Your task to perform on an android device: Add "alienware aurora" to the cart on target.com, then select checkout. Image 0: 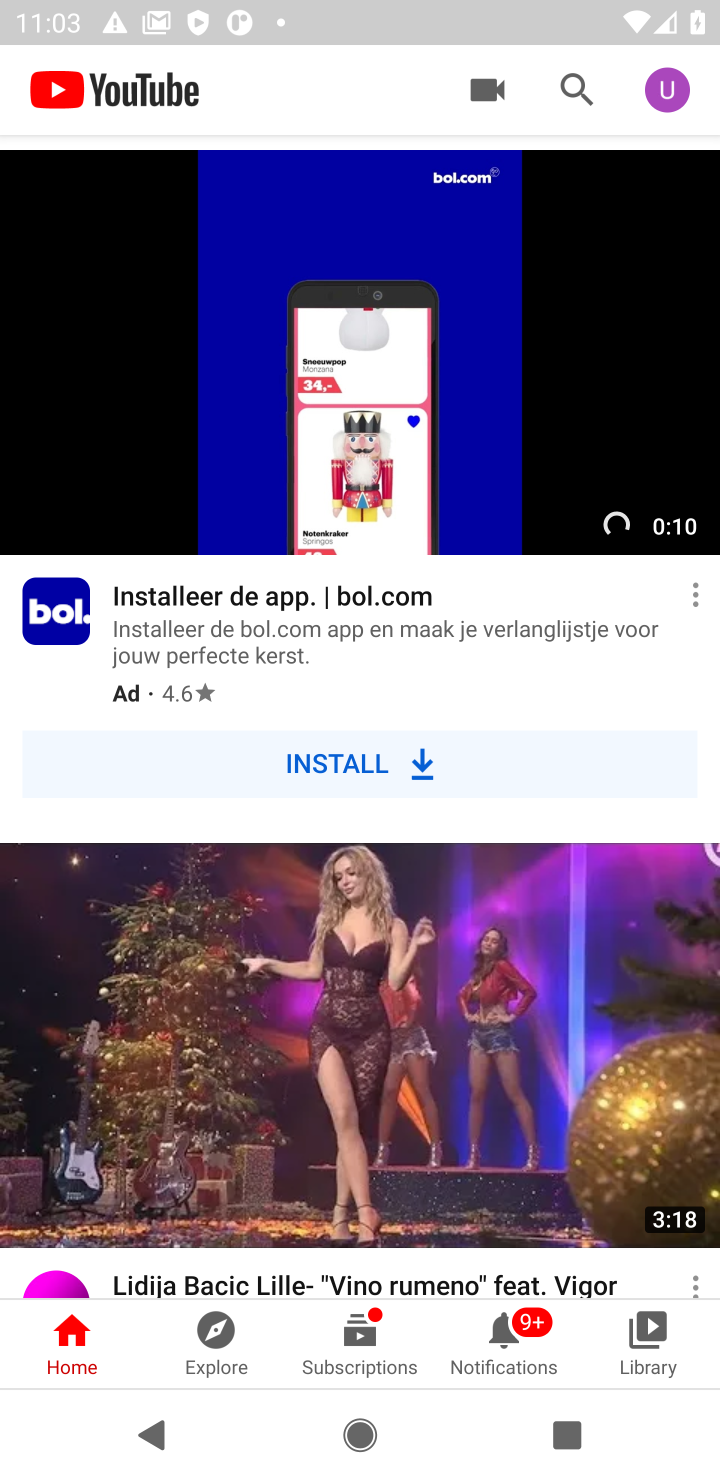
Step 0: press home button
Your task to perform on an android device: Add "alienware aurora" to the cart on target.com, then select checkout. Image 1: 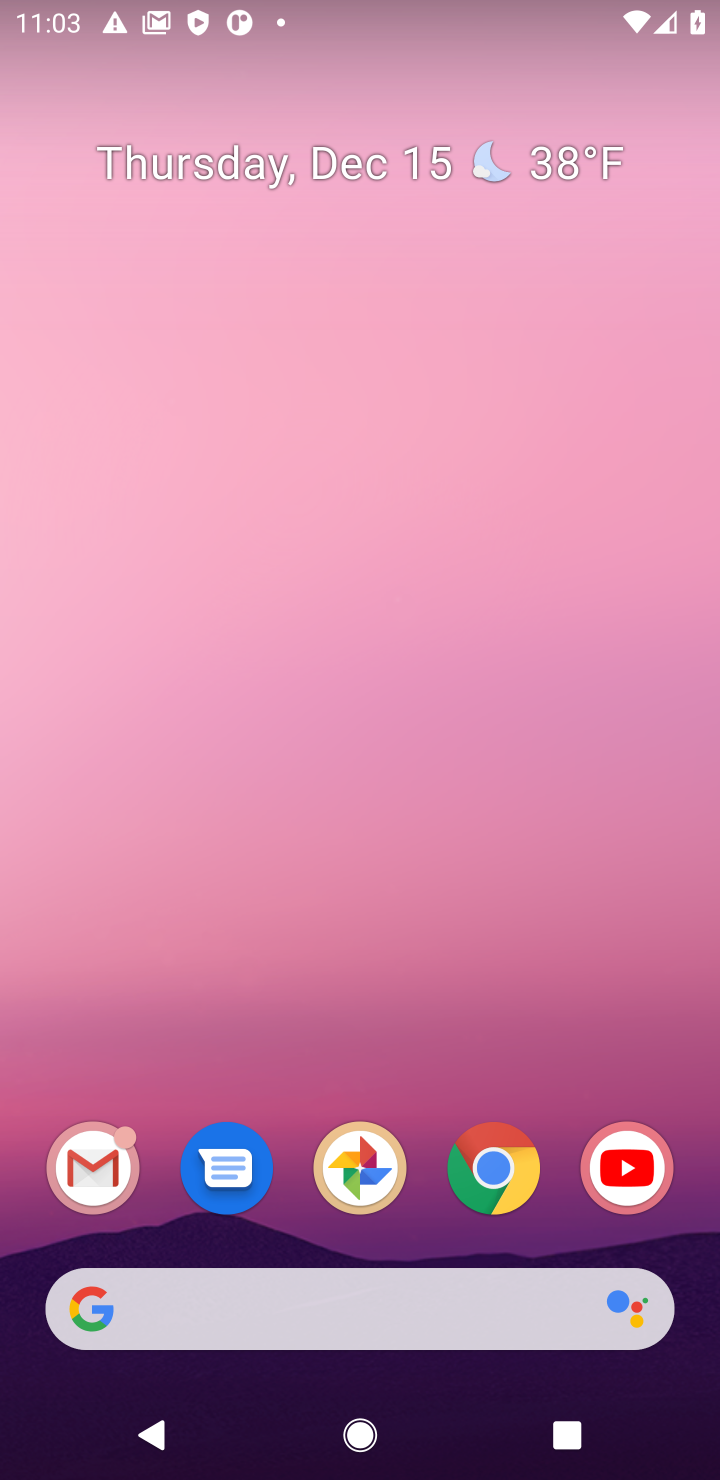
Step 1: click (483, 1162)
Your task to perform on an android device: Add "alienware aurora" to the cart on target.com, then select checkout. Image 2: 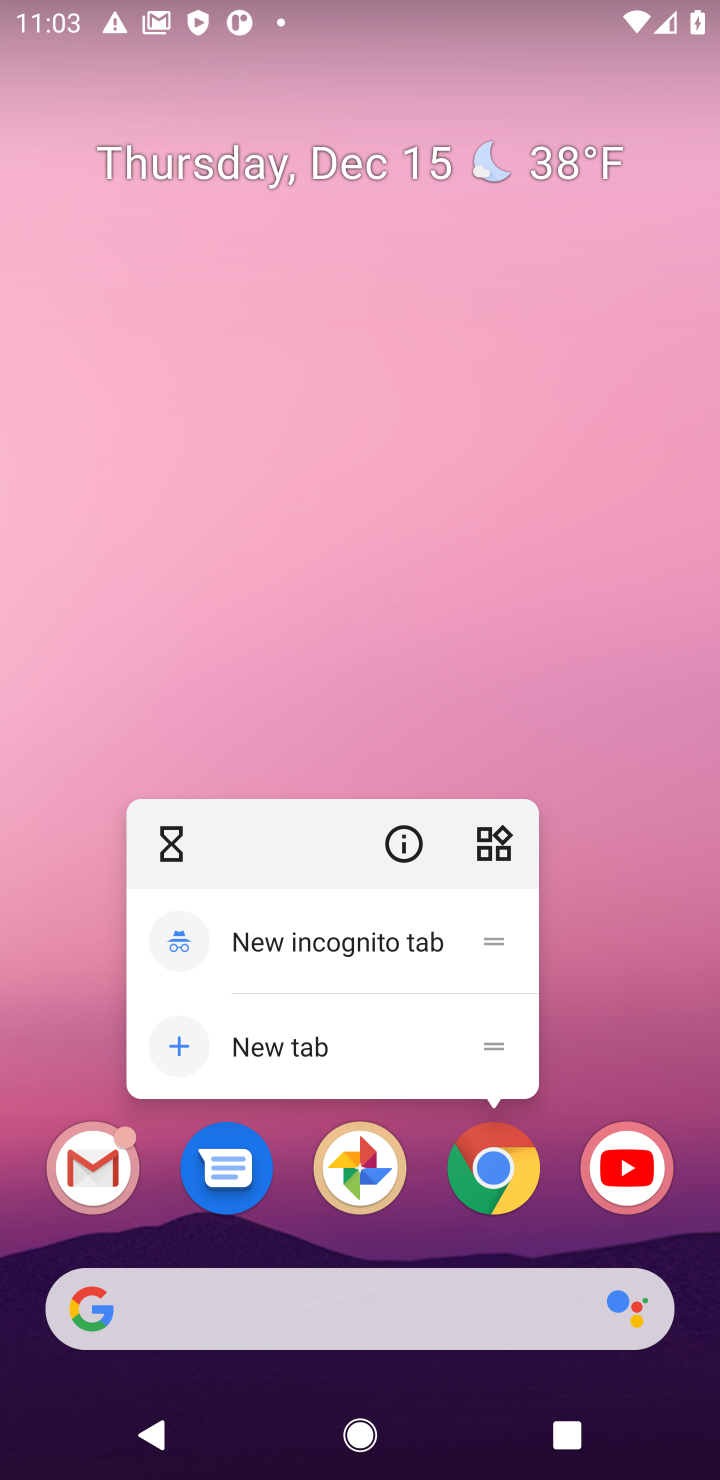
Step 2: click (483, 1162)
Your task to perform on an android device: Add "alienware aurora" to the cart on target.com, then select checkout. Image 3: 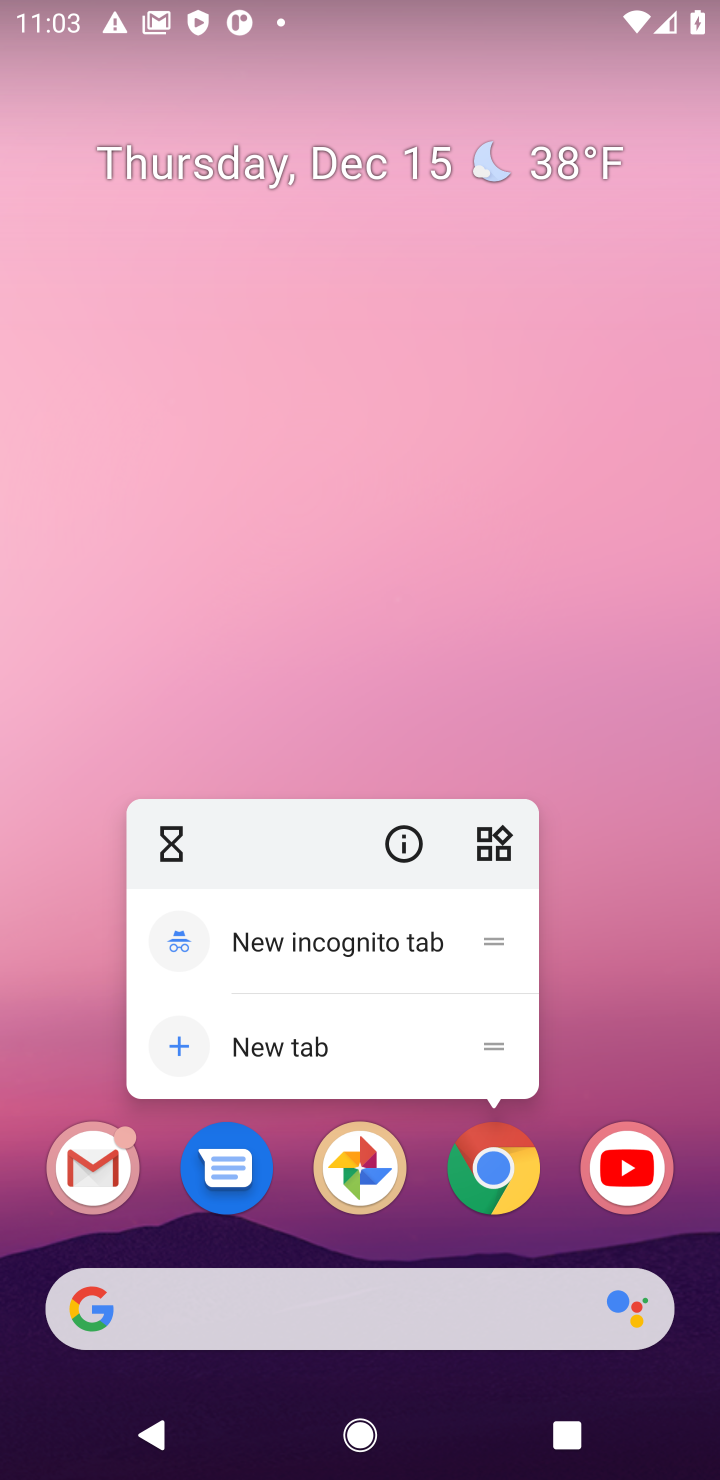
Step 3: click (496, 1174)
Your task to perform on an android device: Add "alienware aurora" to the cart on target.com, then select checkout. Image 4: 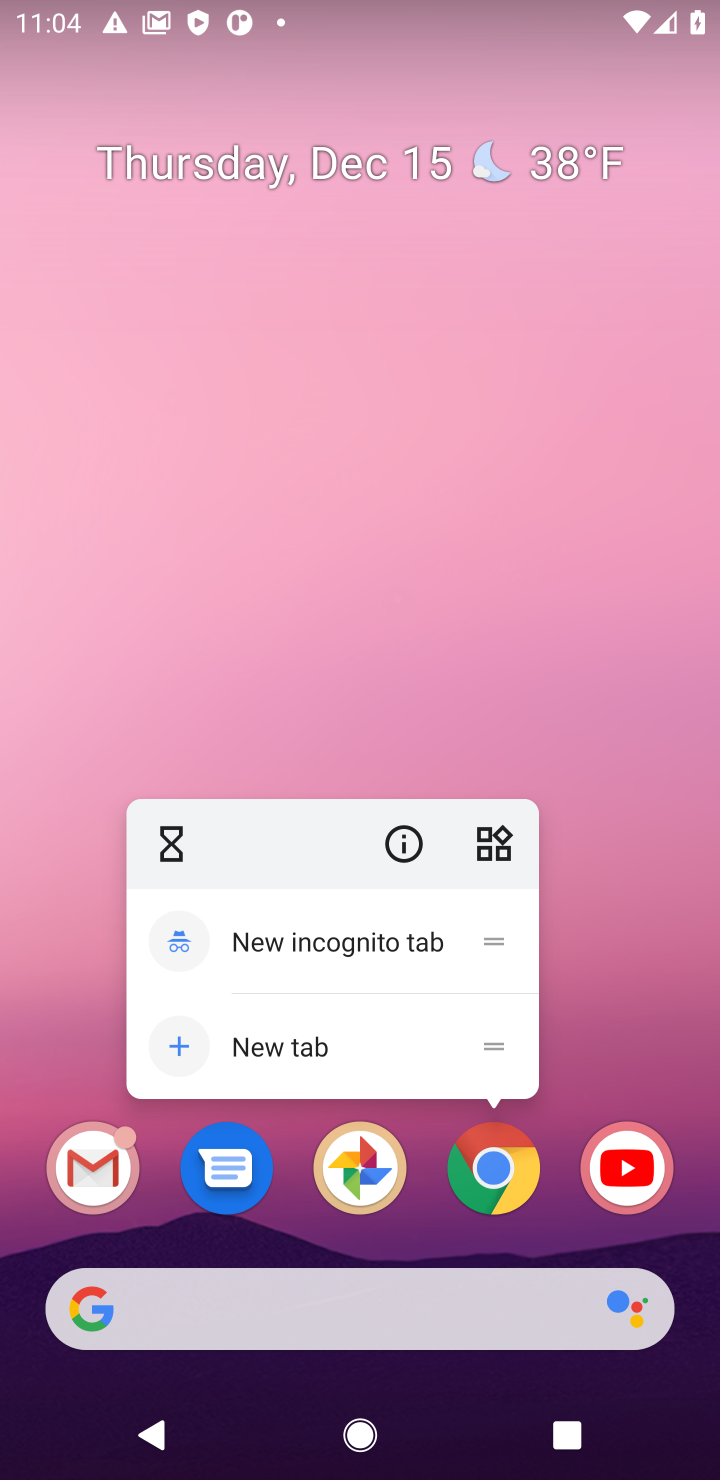
Step 4: click (496, 1174)
Your task to perform on an android device: Add "alienware aurora" to the cart on target.com, then select checkout. Image 5: 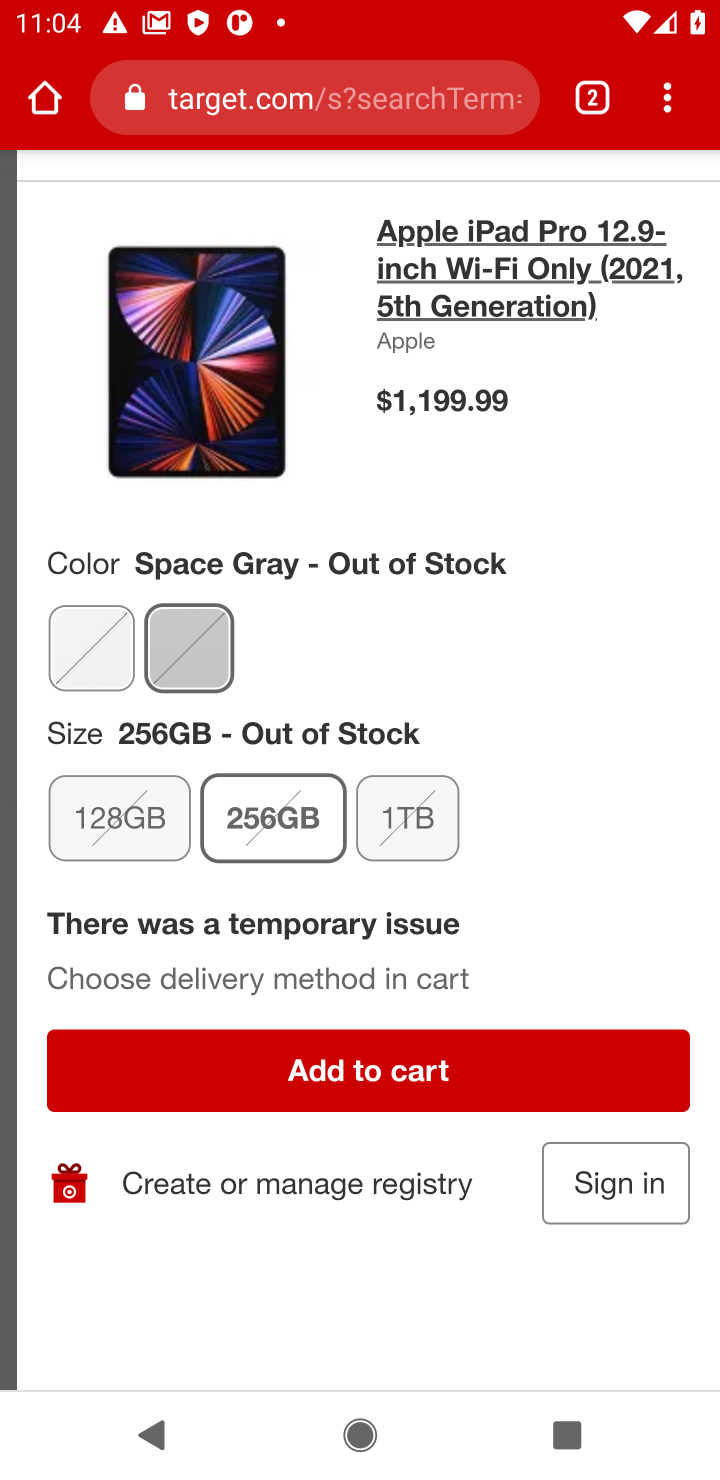
Step 5: click (346, 102)
Your task to perform on an android device: Add "alienware aurora" to the cart on target.com, then select checkout. Image 6: 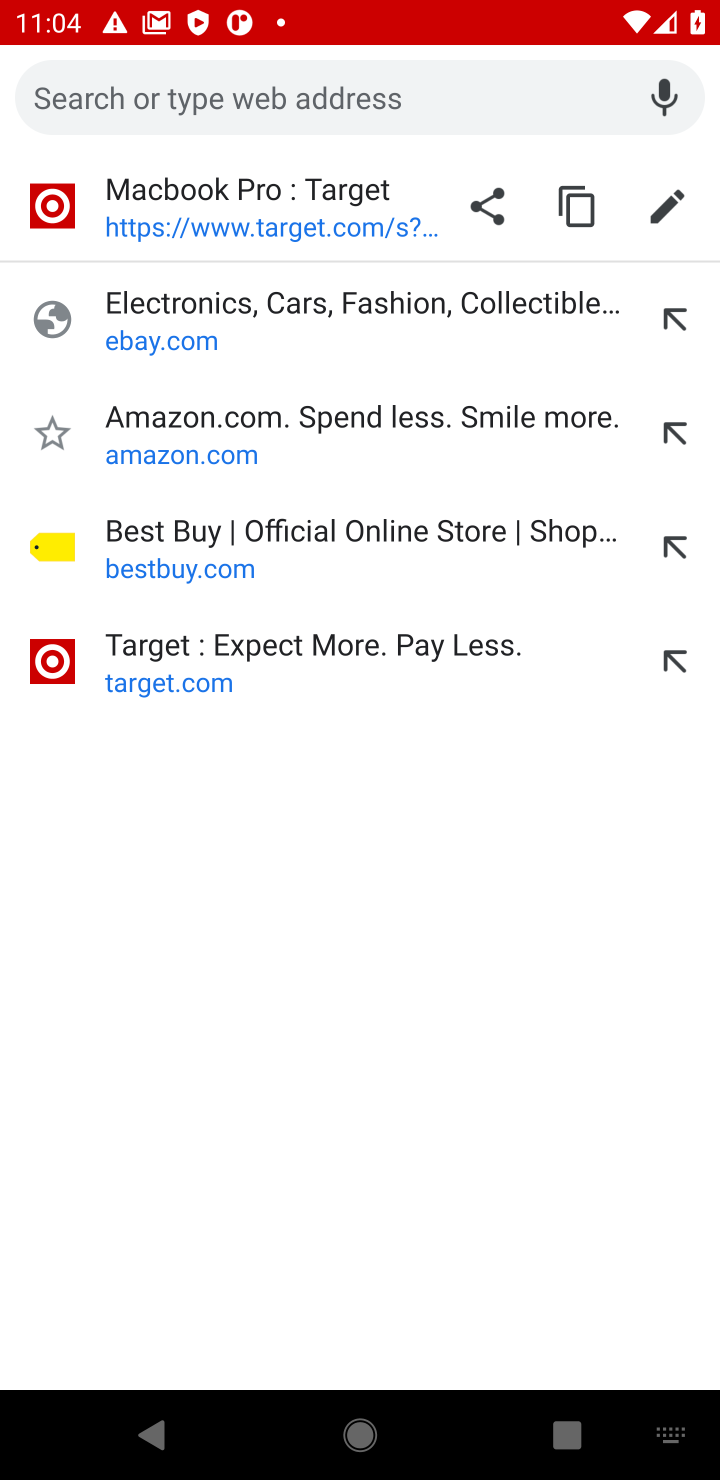
Step 6: click (352, 671)
Your task to perform on an android device: Add "alienware aurora" to the cart on target.com, then select checkout. Image 7: 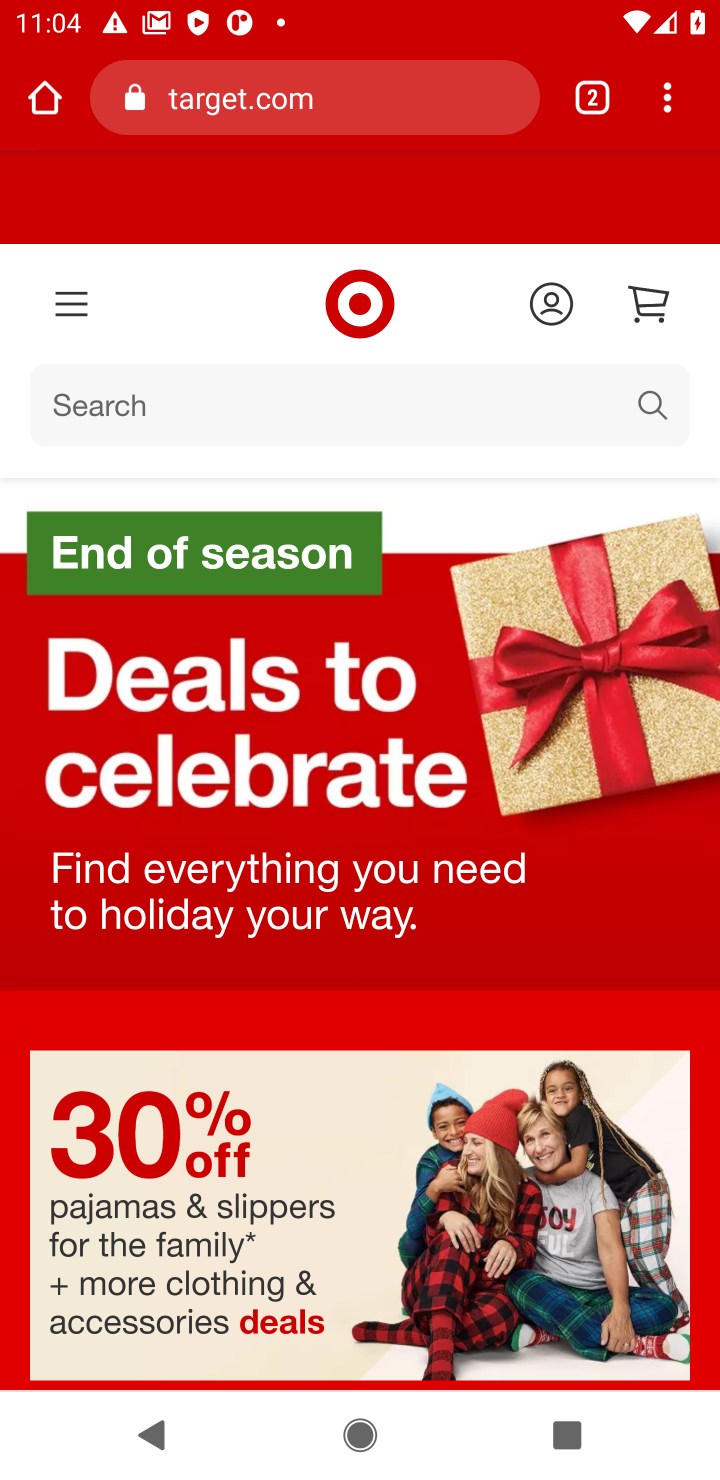
Step 7: click (393, 408)
Your task to perform on an android device: Add "alienware aurora" to the cart on target.com, then select checkout. Image 8: 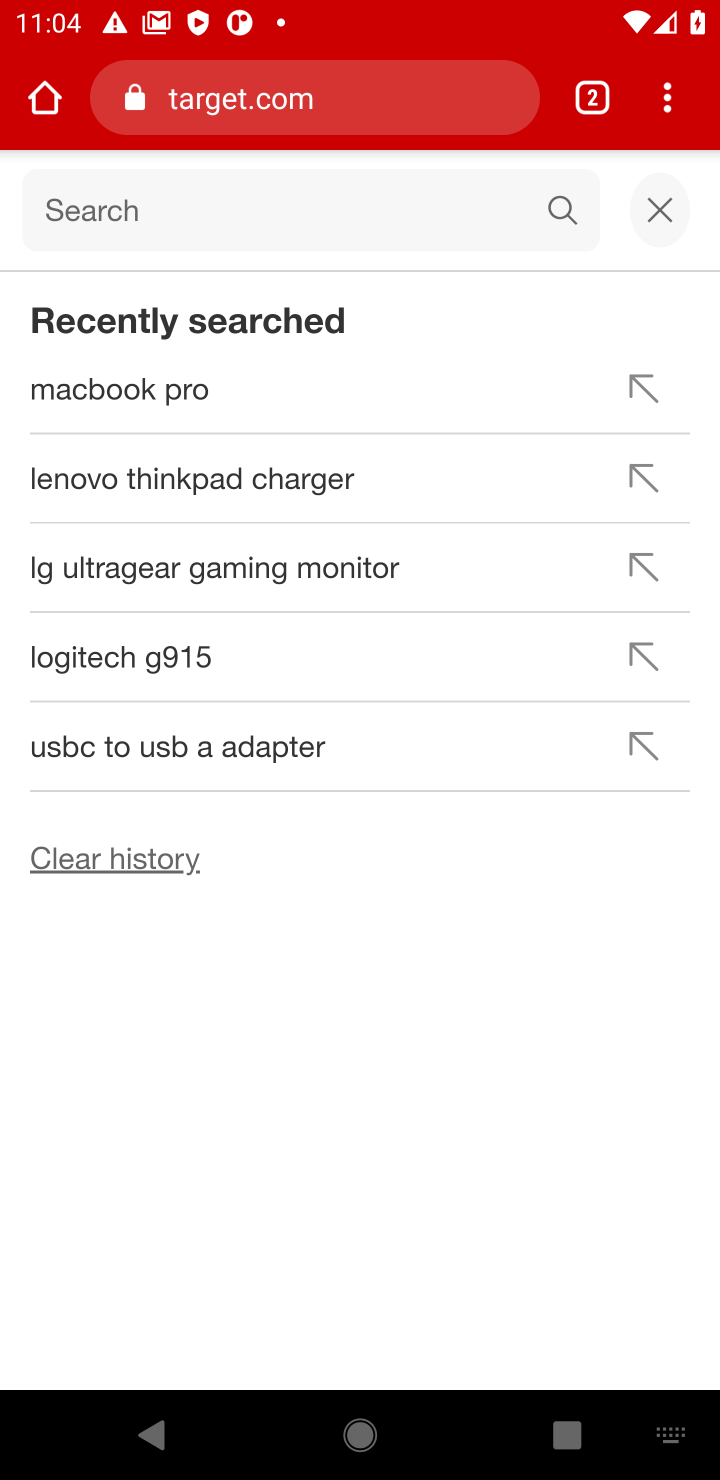
Step 8: type "alienware aurora"
Your task to perform on an android device: Add "alienware aurora" to the cart on target.com, then select checkout. Image 9: 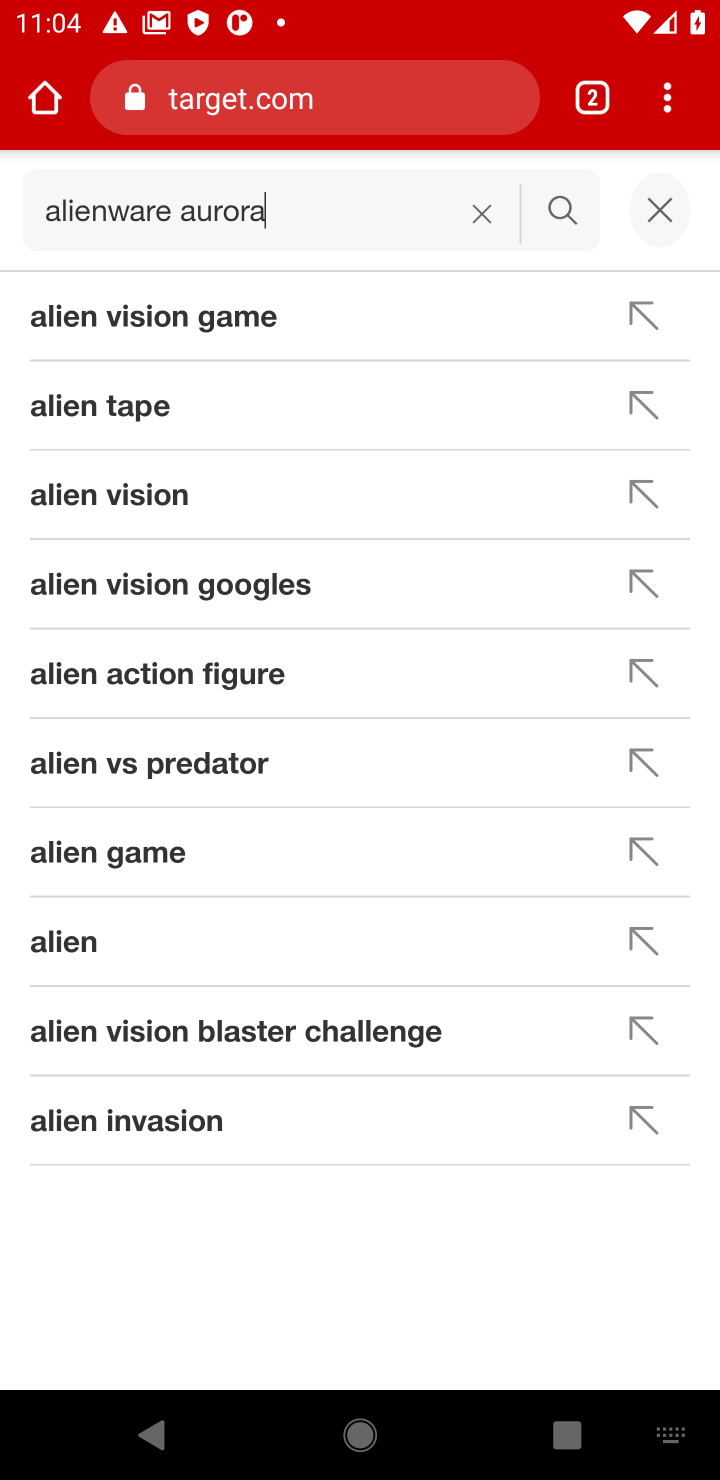
Step 9: click (176, 321)
Your task to perform on an android device: Add "alienware aurora" to the cart on target.com, then select checkout. Image 10: 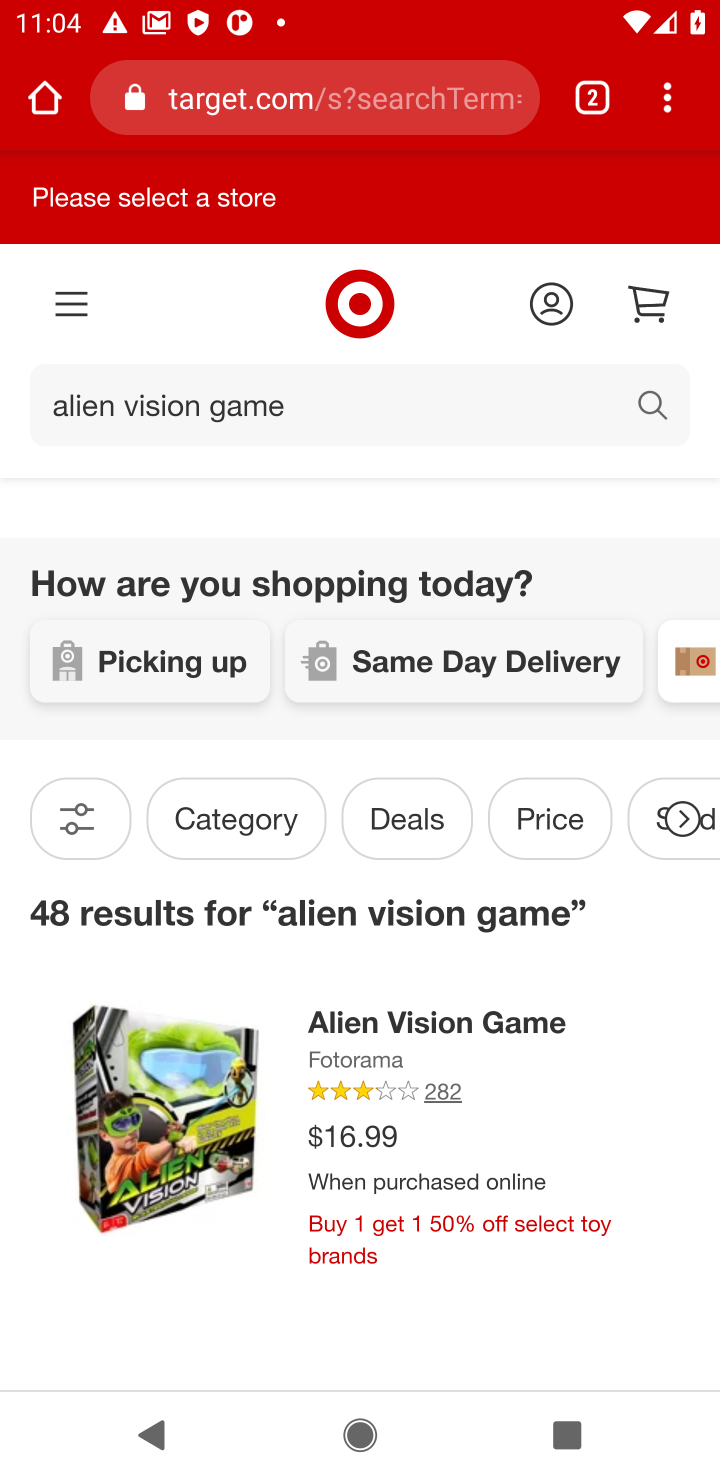
Step 10: click (565, 1117)
Your task to perform on an android device: Add "alienware aurora" to the cart on target.com, then select checkout. Image 11: 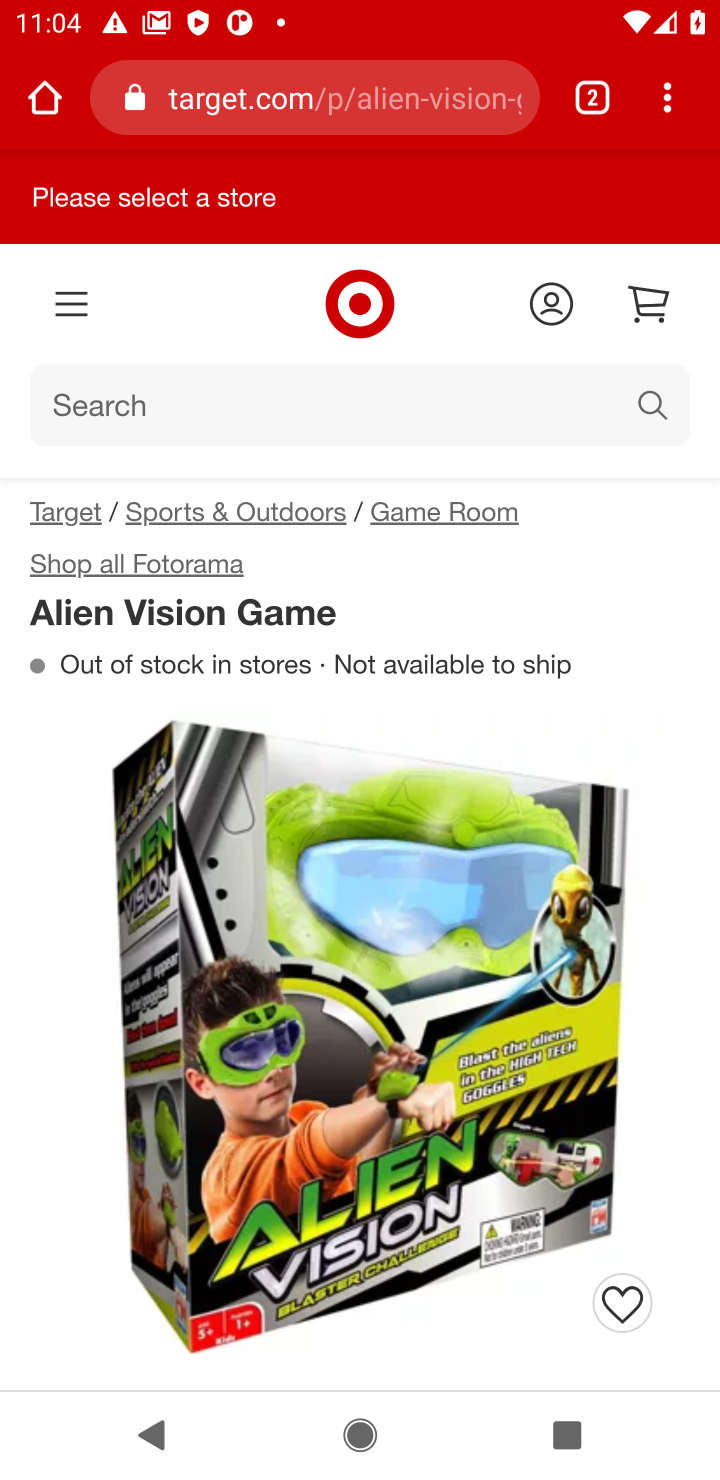
Step 11: drag from (409, 1299) to (403, 590)
Your task to perform on an android device: Add "alienware aurora" to the cart on target.com, then select checkout. Image 12: 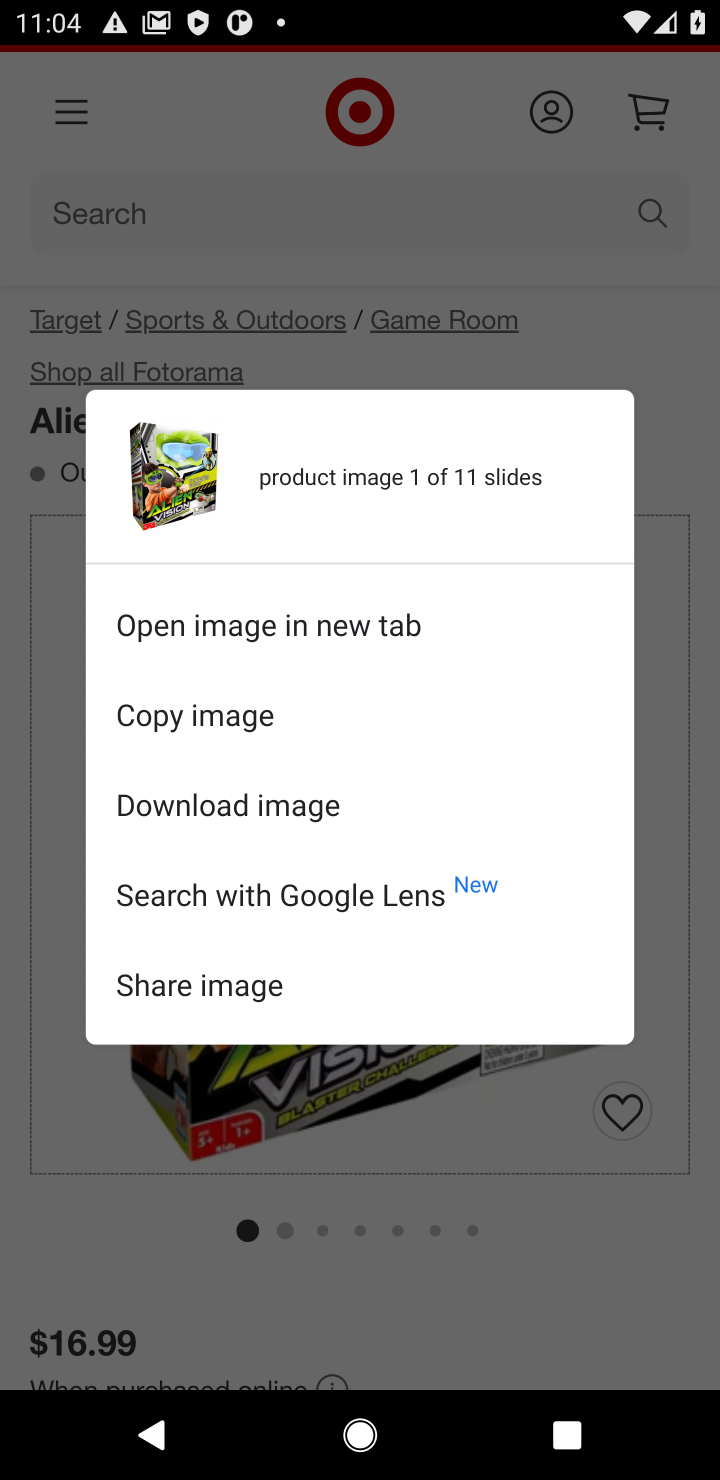
Step 12: click (632, 1245)
Your task to perform on an android device: Add "alienware aurora" to the cart on target.com, then select checkout. Image 13: 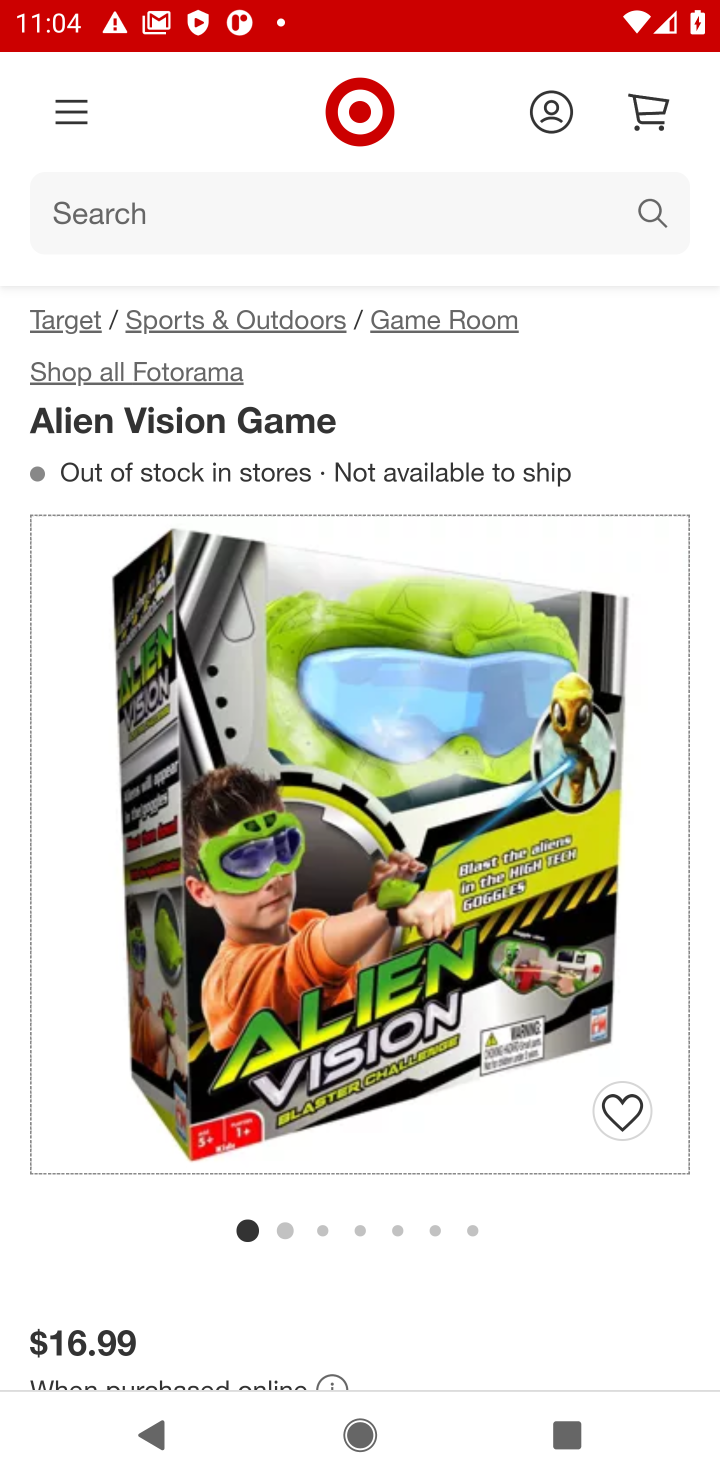
Step 13: drag from (632, 1245) to (530, 251)
Your task to perform on an android device: Add "alienware aurora" to the cart on target.com, then select checkout. Image 14: 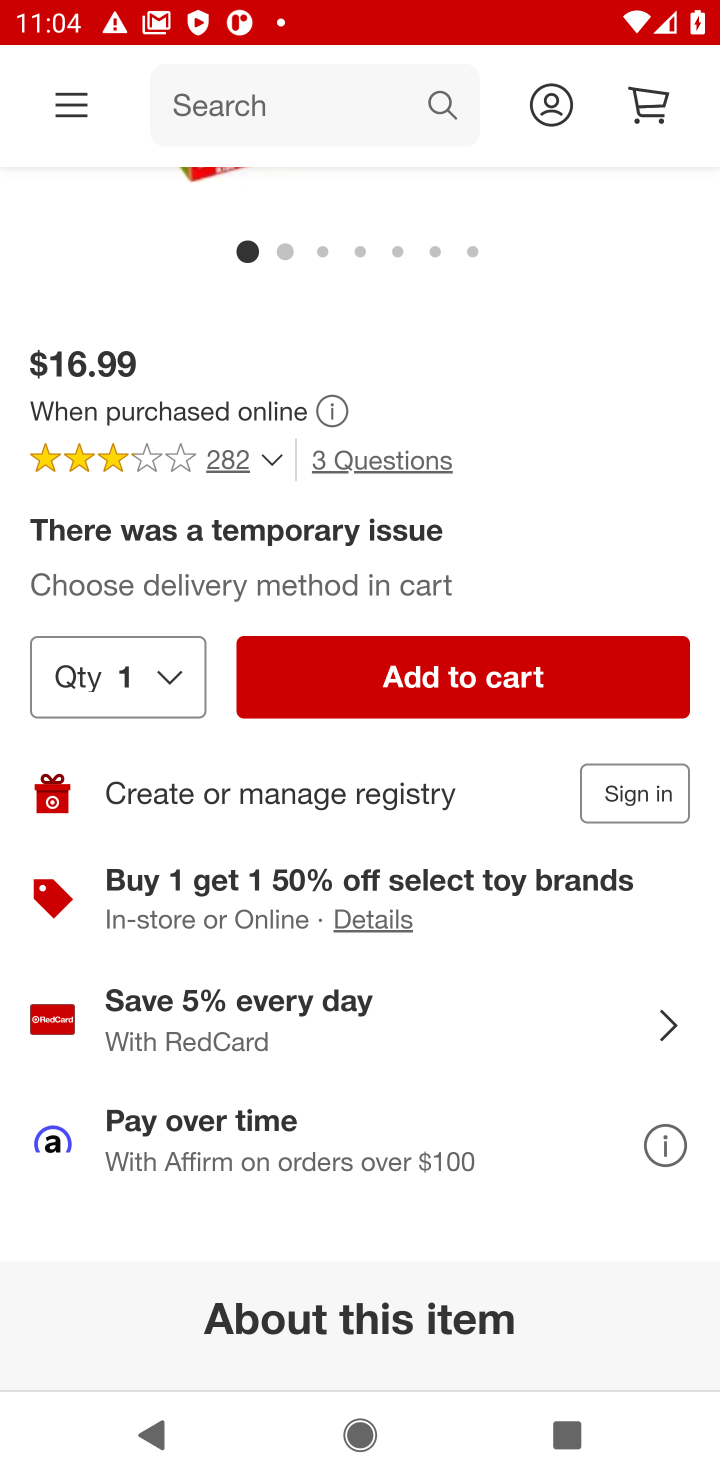
Step 14: click (428, 685)
Your task to perform on an android device: Add "alienware aurora" to the cart on target.com, then select checkout. Image 15: 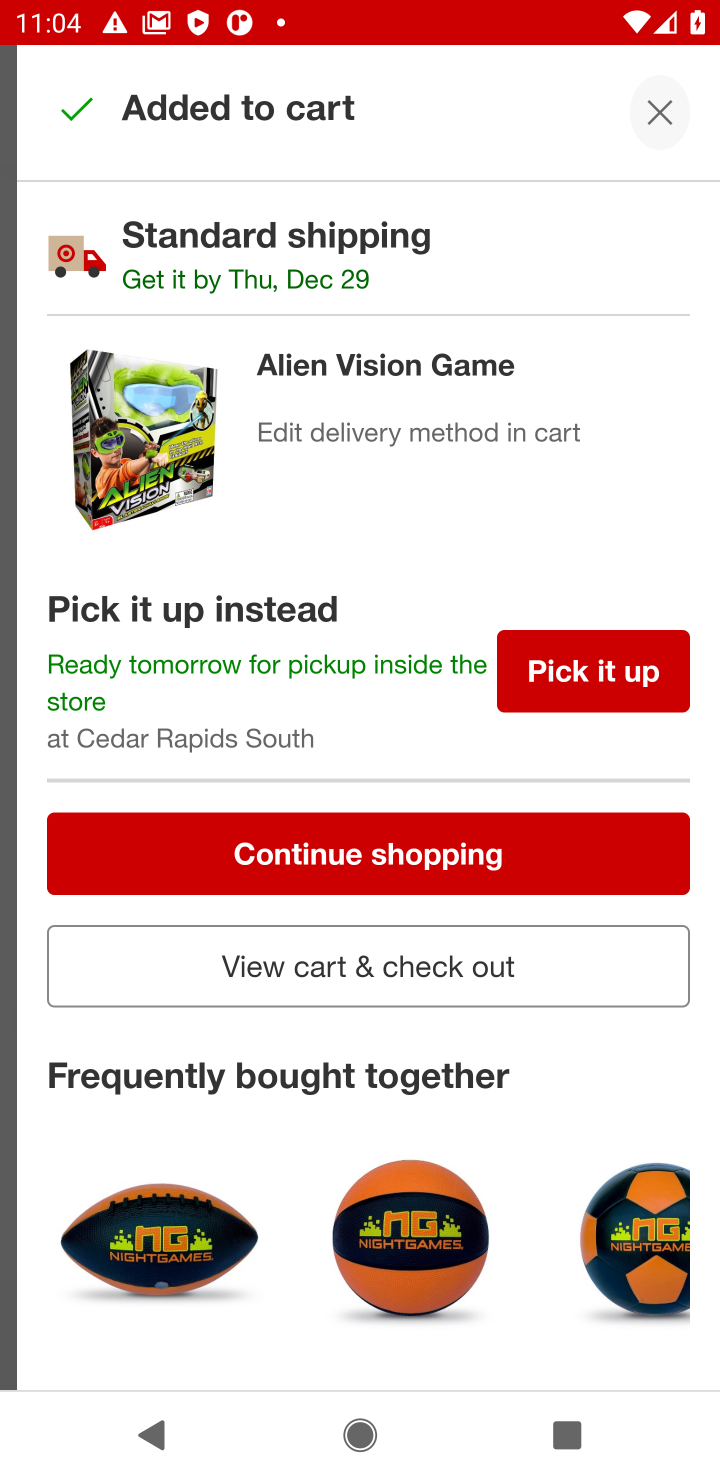
Step 15: click (368, 969)
Your task to perform on an android device: Add "alienware aurora" to the cart on target.com, then select checkout. Image 16: 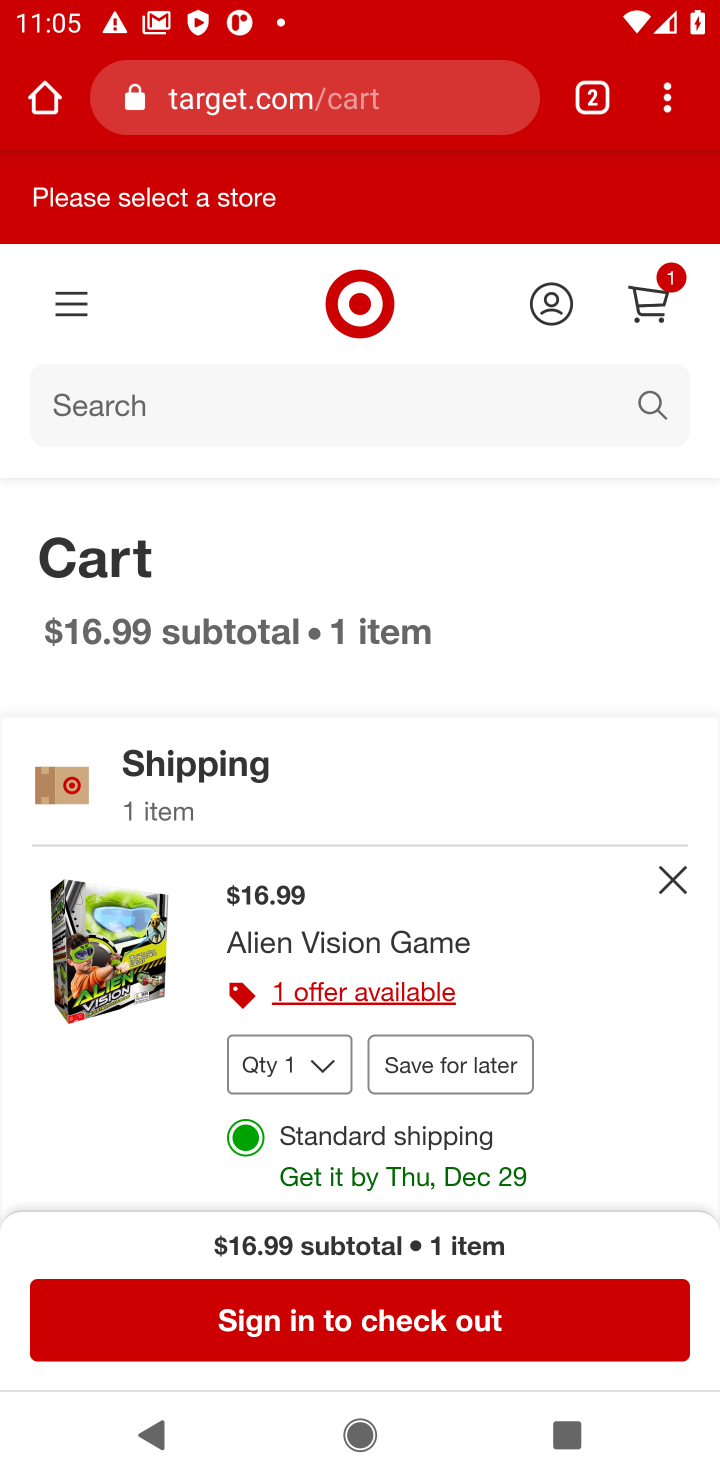
Step 16: click (325, 1326)
Your task to perform on an android device: Add "alienware aurora" to the cart on target.com, then select checkout. Image 17: 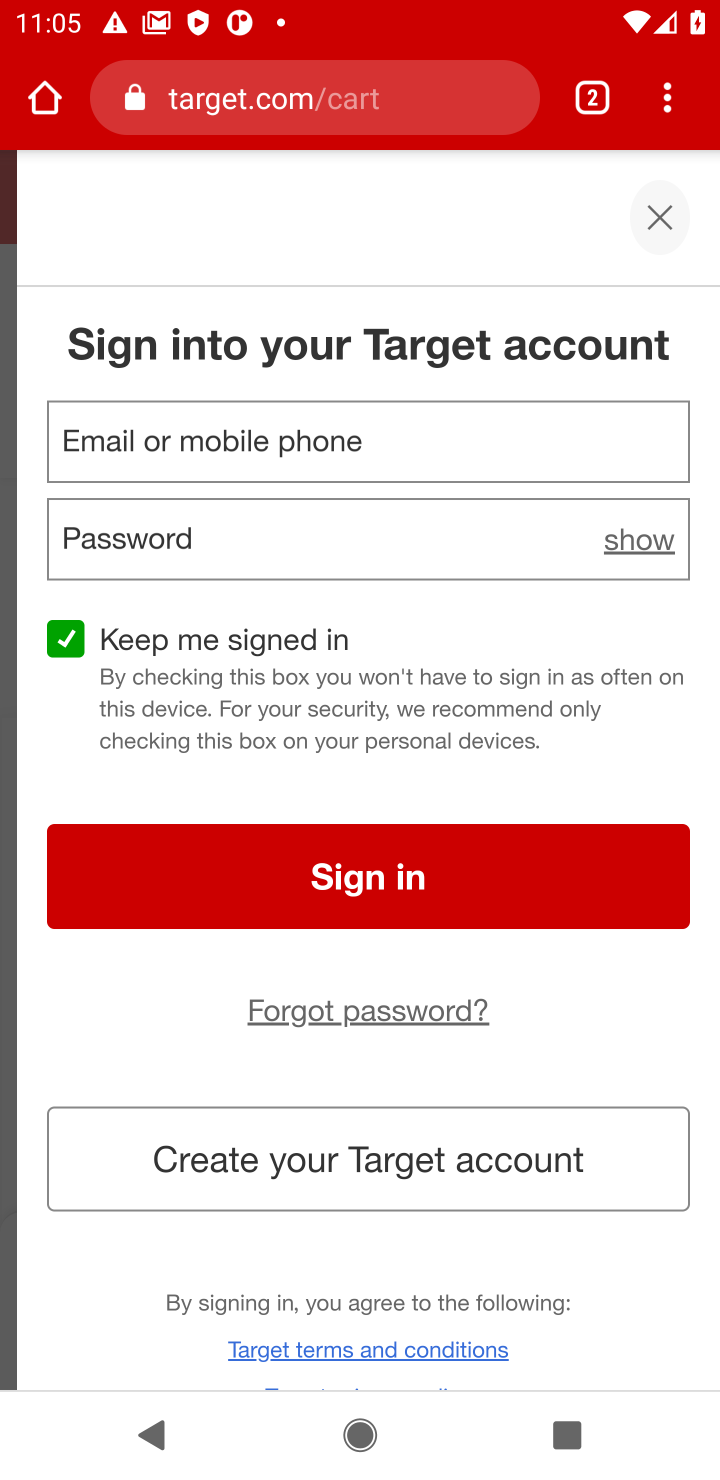
Step 17: task complete